Your task to perform on an android device: toggle javascript in the chrome app Image 0: 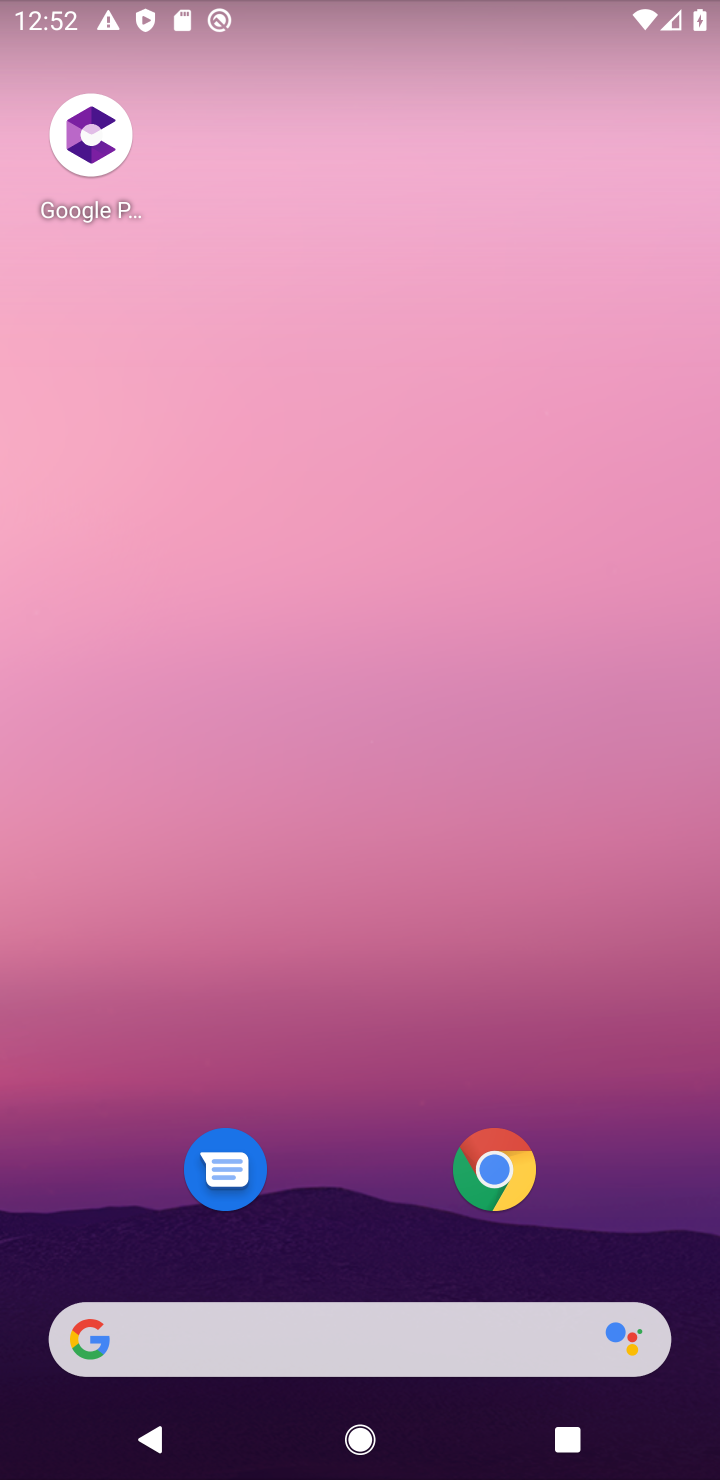
Step 0: click (498, 1160)
Your task to perform on an android device: toggle javascript in the chrome app Image 1: 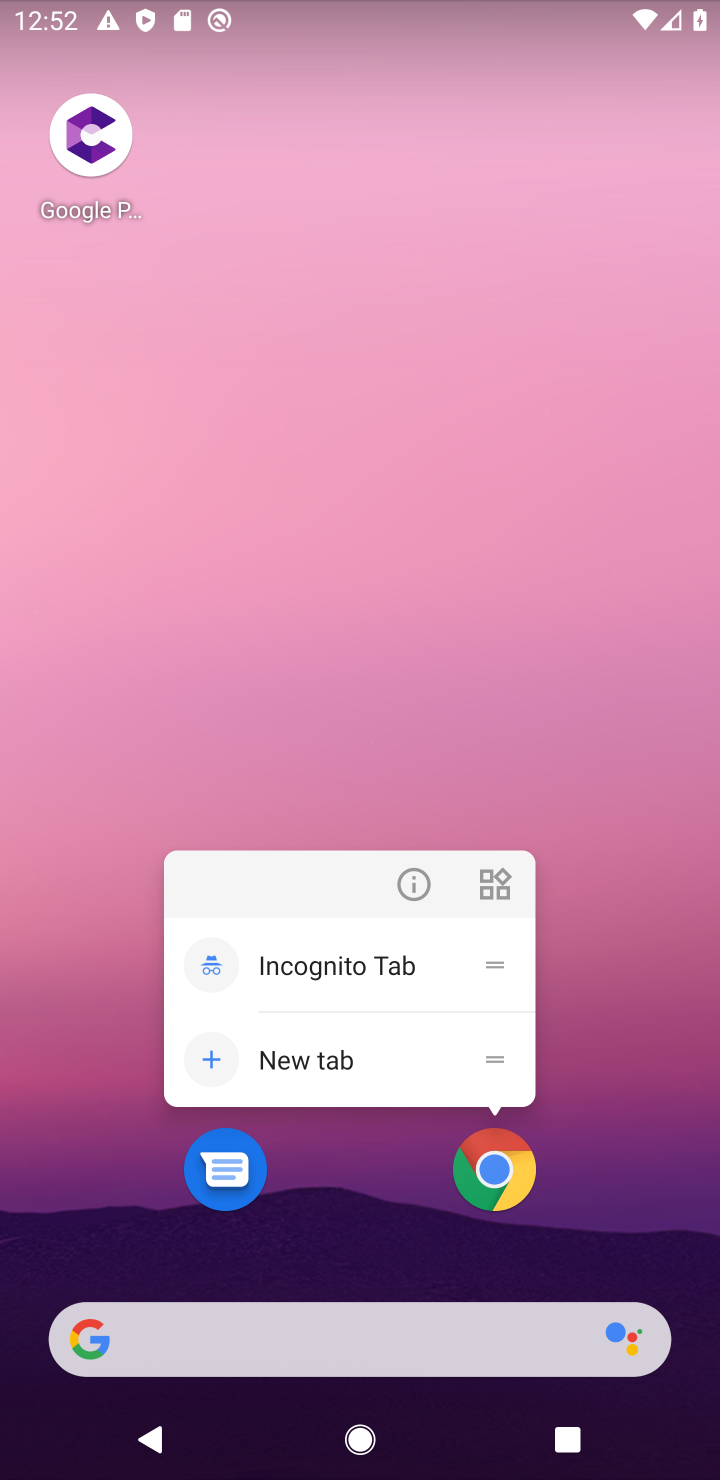
Step 1: click (484, 1162)
Your task to perform on an android device: toggle javascript in the chrome app Image 2: 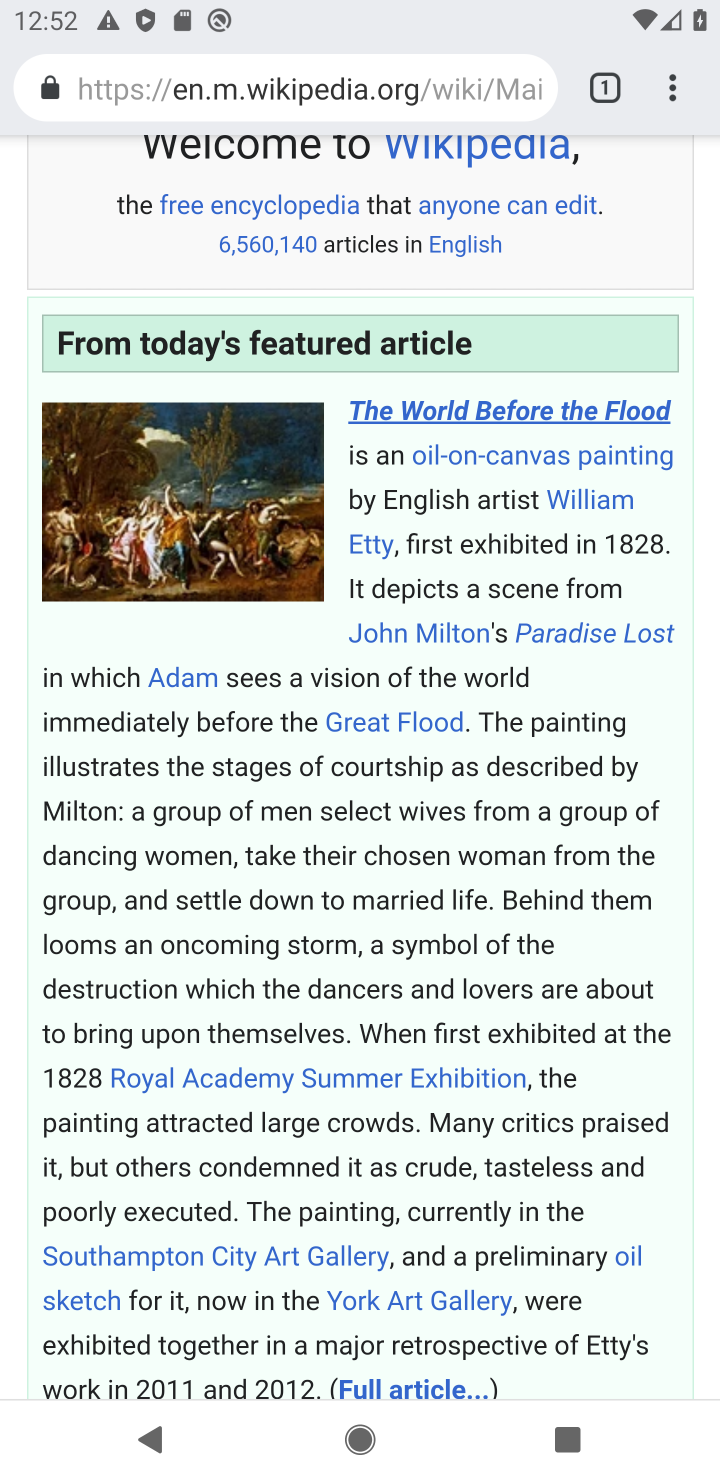
Step 2: drag from (565, 304) to (577, 1184)
Your task to perform on an android device: toggle javascript in the chrome app Image 3: 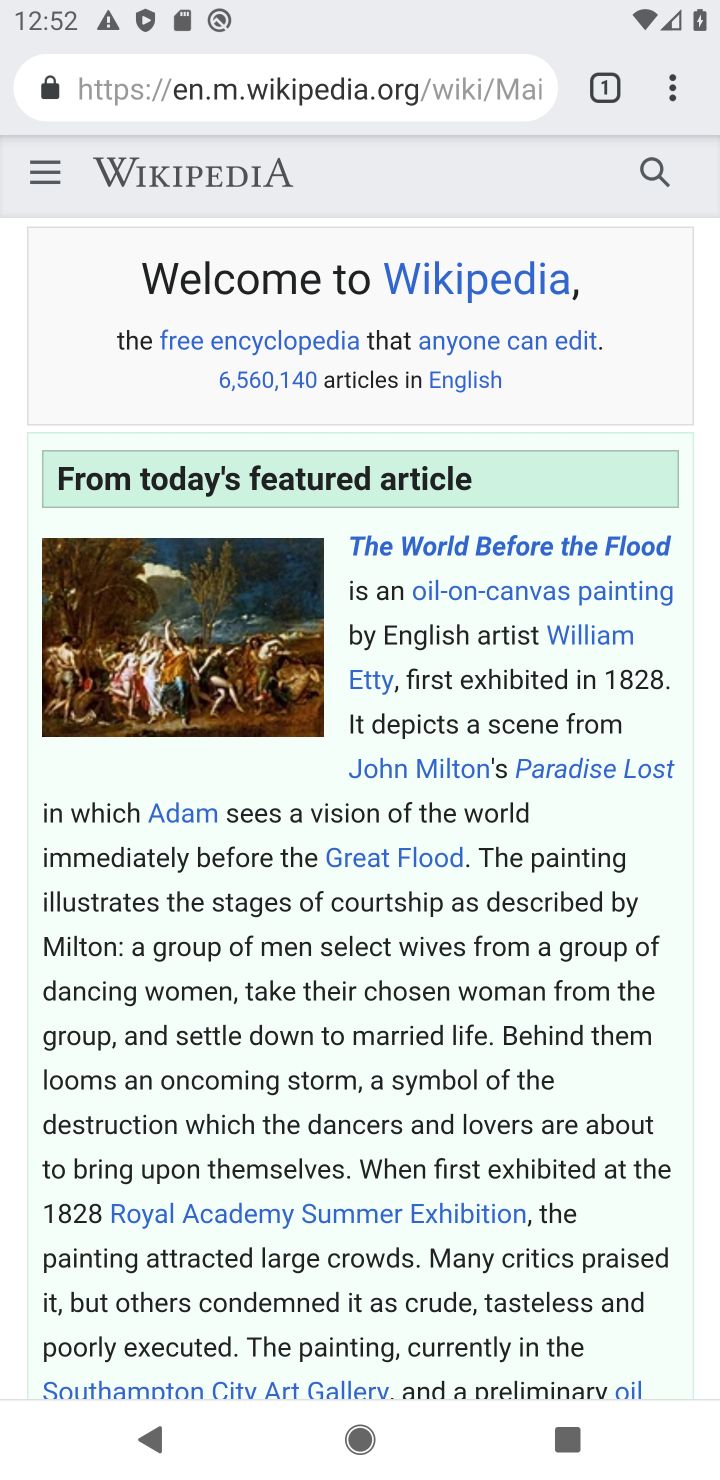
Step 3: click (665, 89)
Your task to perform on an android device: toggle javascript in the chrome app Image 4: 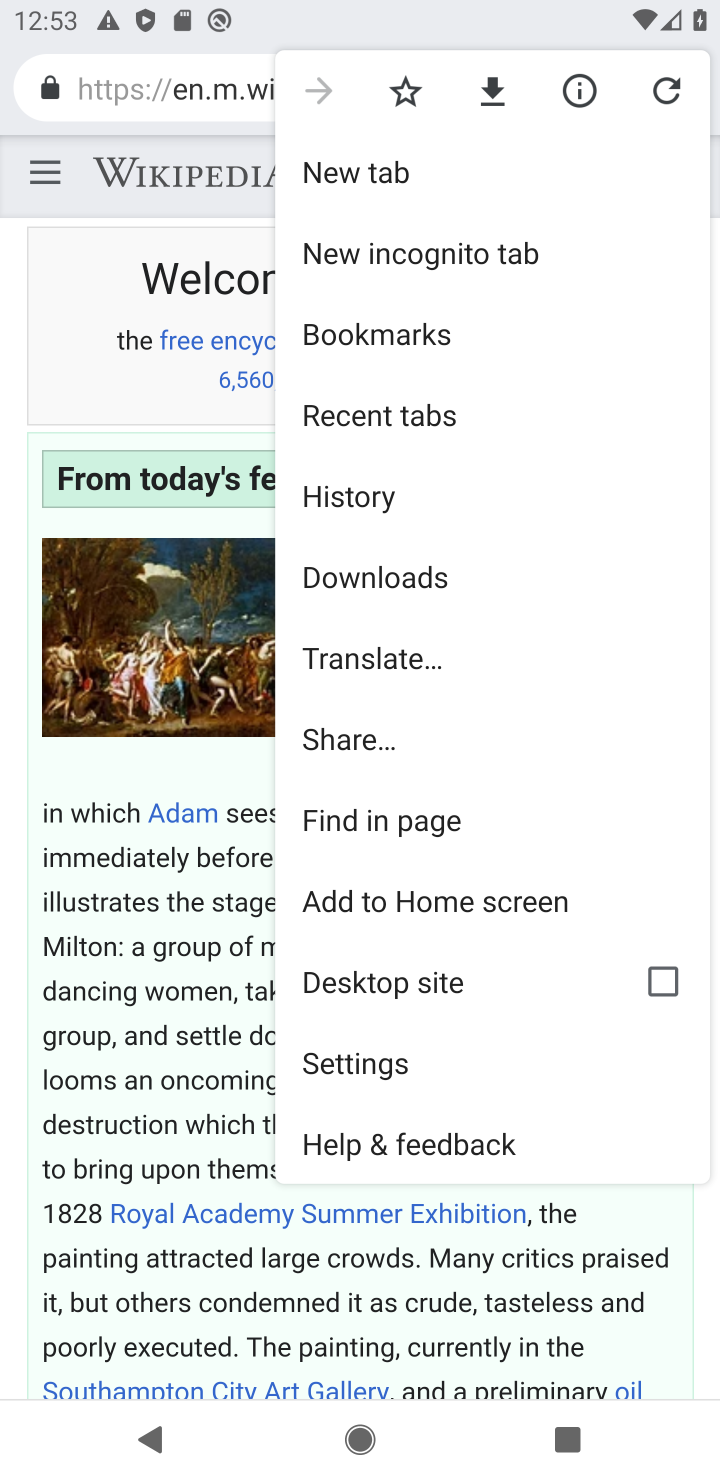
Step 4: click (353, 1046)
Your task to perform on an android device: toggle javascript in the chrome app Image 5: 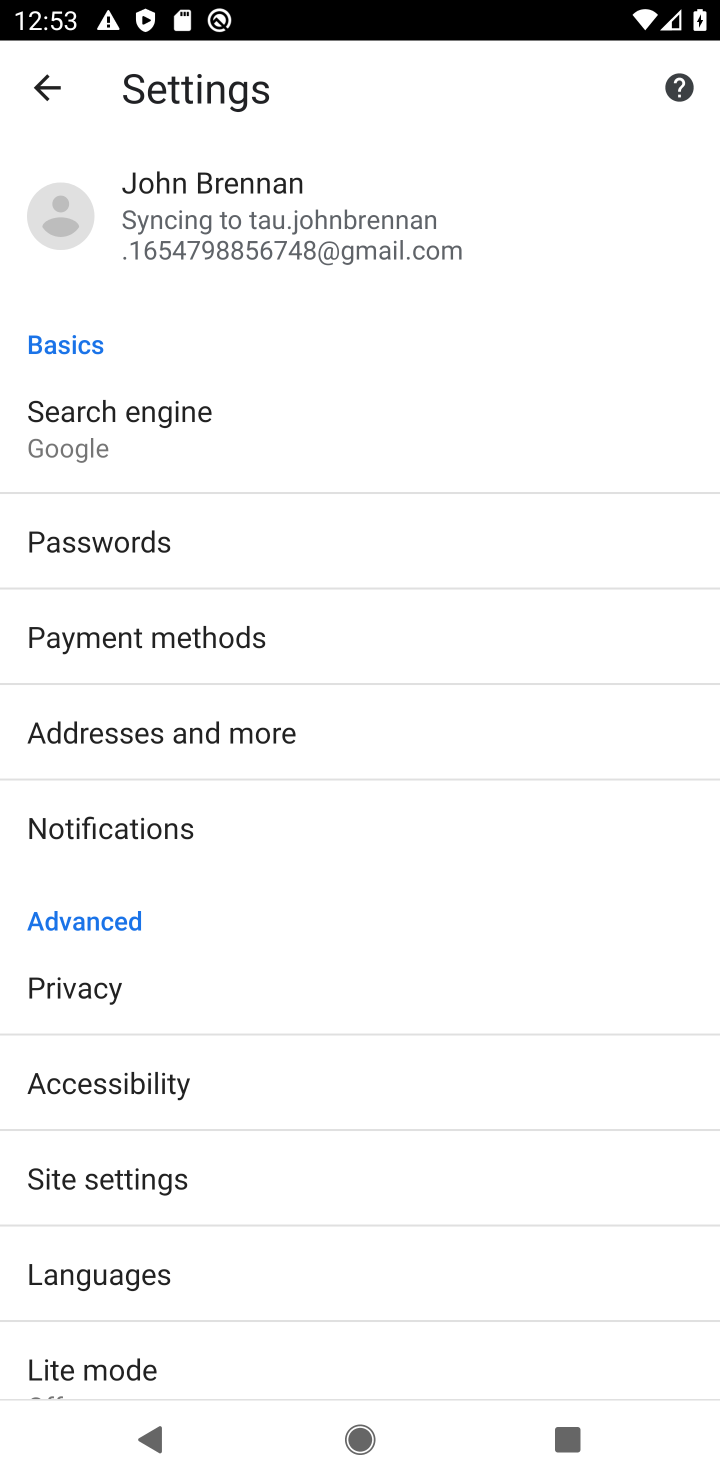
Step 5: click (186, 1180)
Your task to perform on an android device: toggle javascript in the chrome app Image 6: 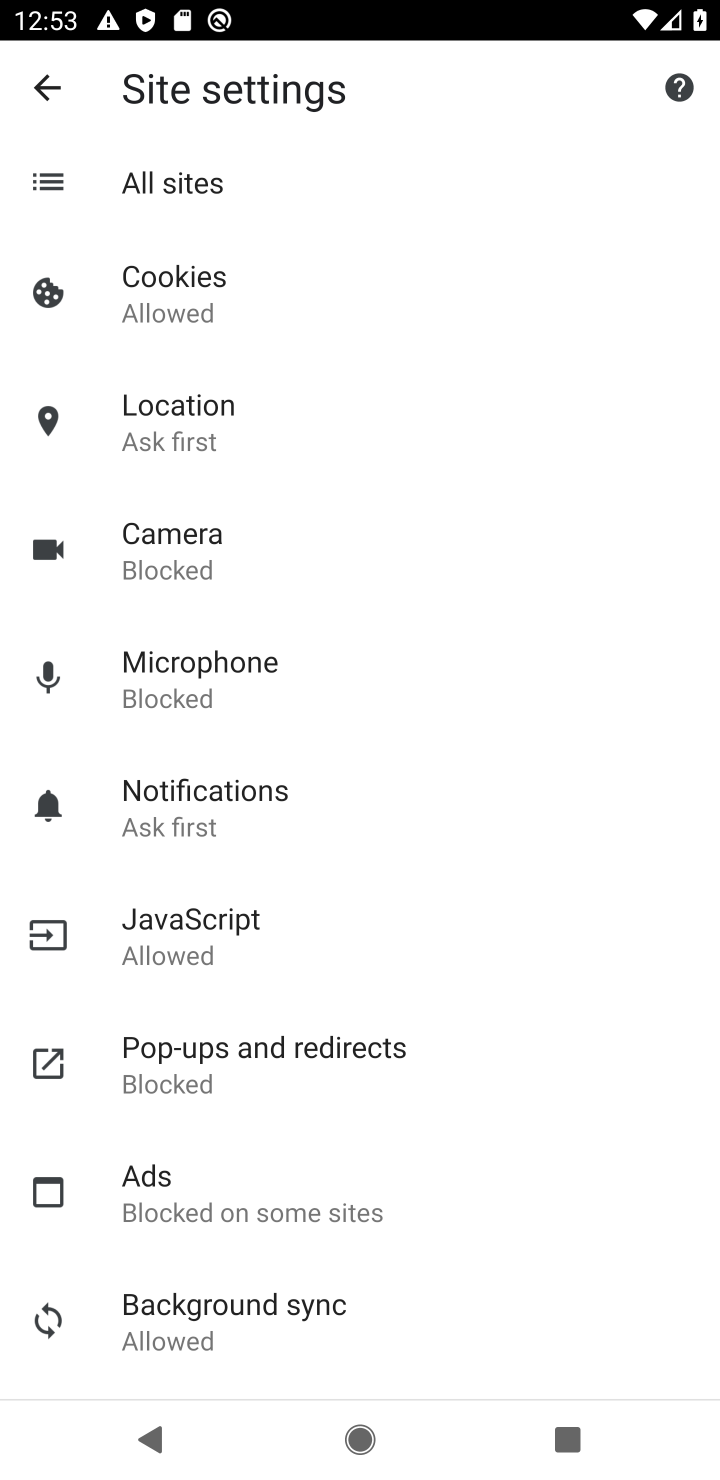
Step 6: click (194, 943)
Your task to perform on an android device: toggle javascript in the chrome app Image 7: 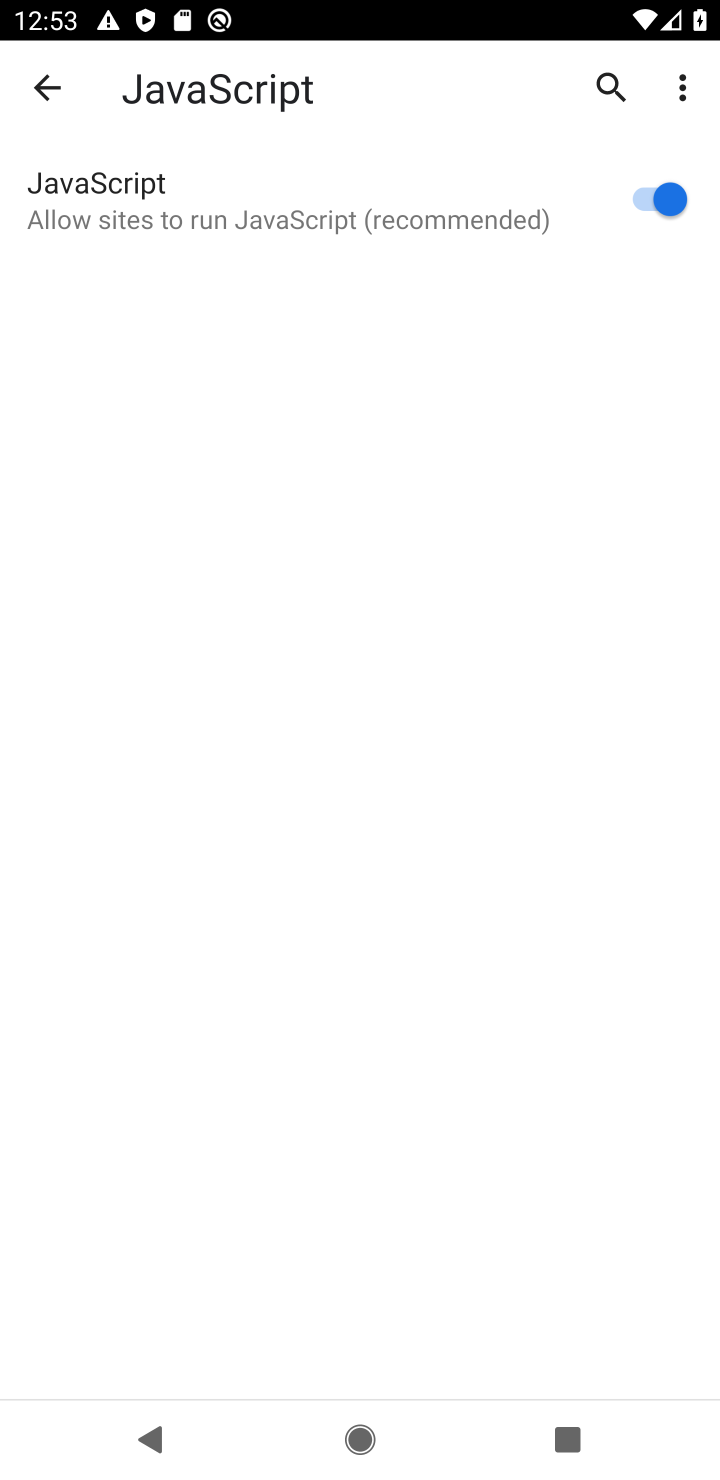
Step 7: click (593, 197)
Your task to perform on an android device: toggle javascript in the chrome app Image 8: 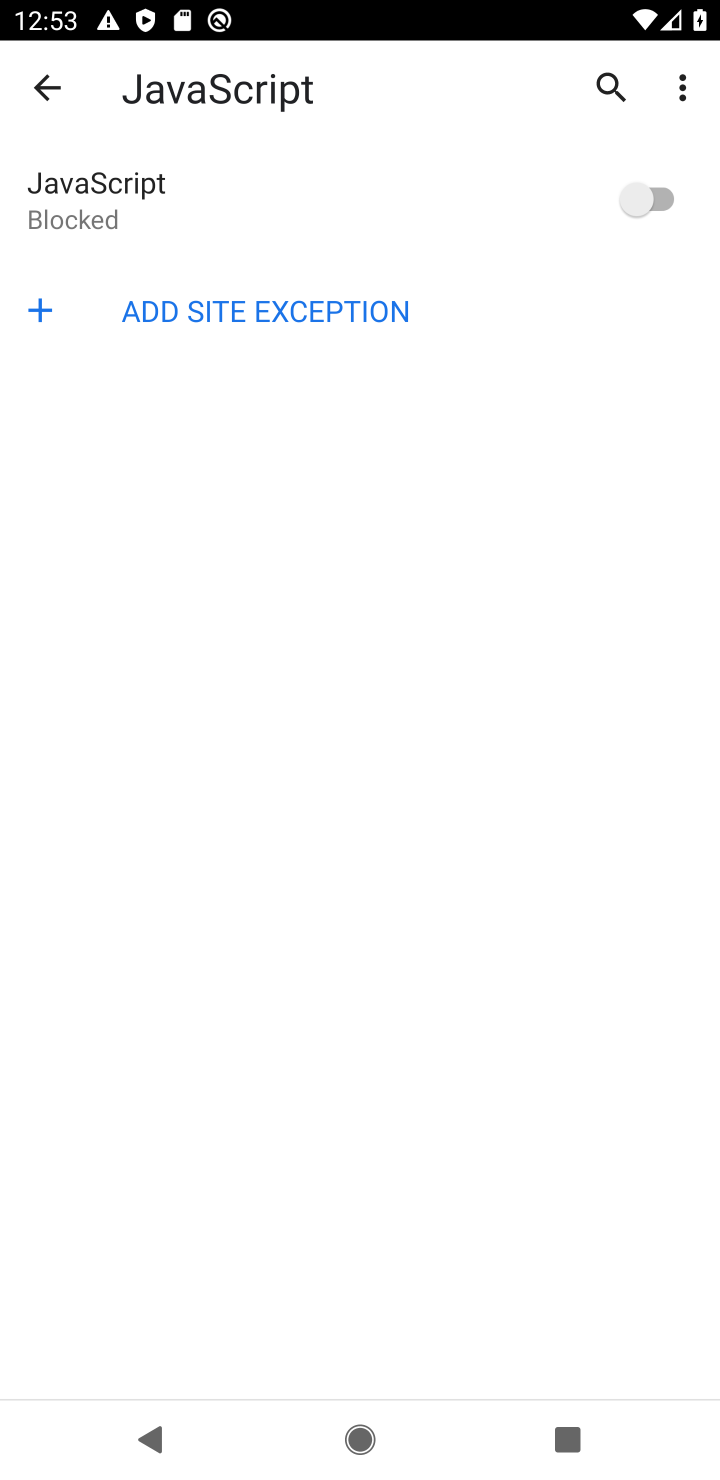
Step 8: task complete